Your task to perform on an android device: turn off notifications in google photos Image 0: 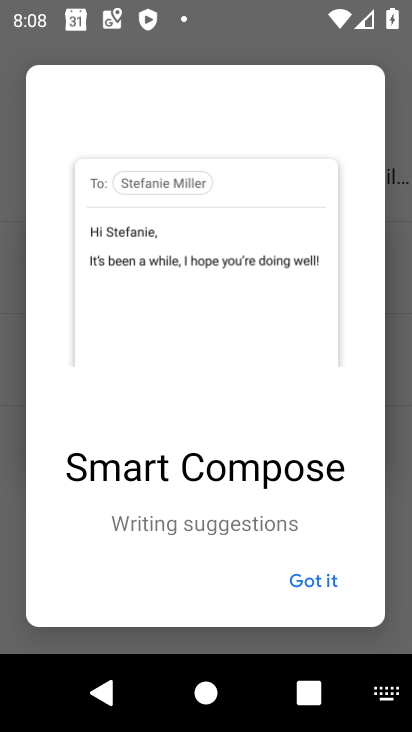
Step 0: press home button
Your task to perform on an android device: turn off notifications in google photos Image 1: 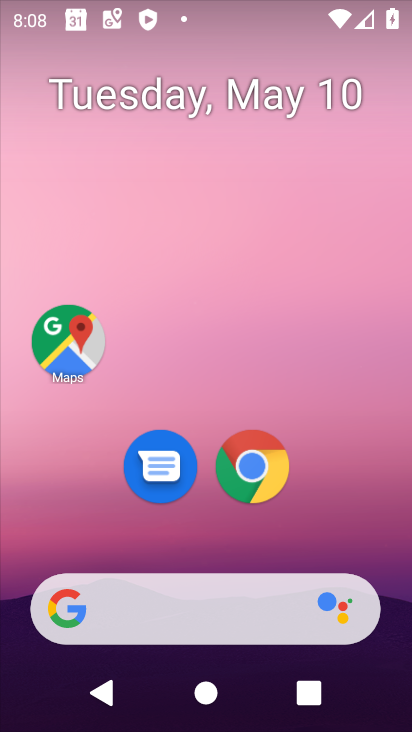
Step 1: drag from (321, 537) to (262, 35)
Your task to perform on an android device: turn off notifications in google photos Image 2: 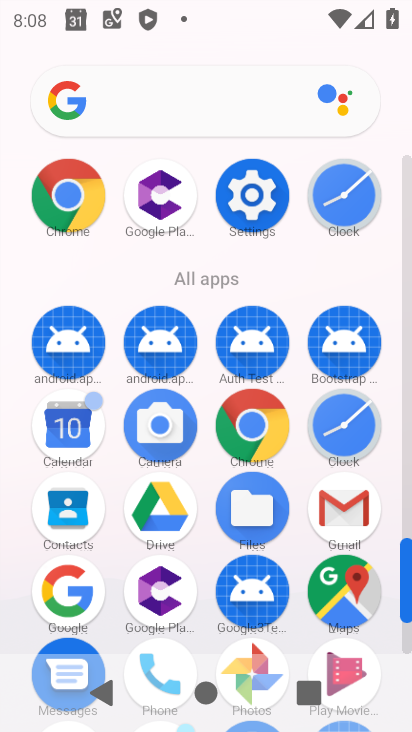
Step 2: drag from (234, 519) to (205, 343)
Your task to perform on an android device: turn off notifications in google photos Image 3: 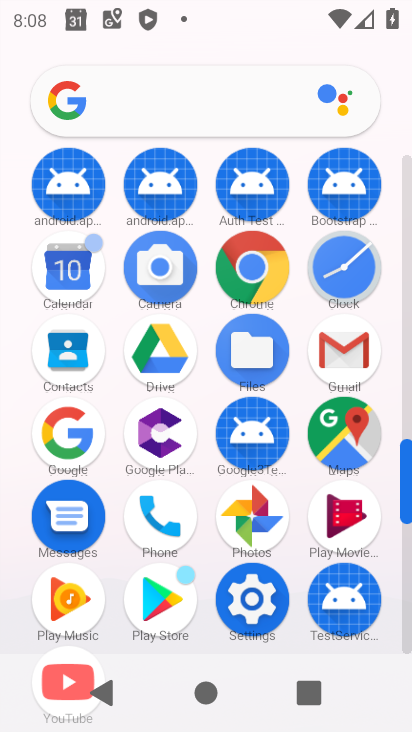
Step 3: click (233, 513)
Your task to perform on an android device: turn off notifications in google photos Image 4: 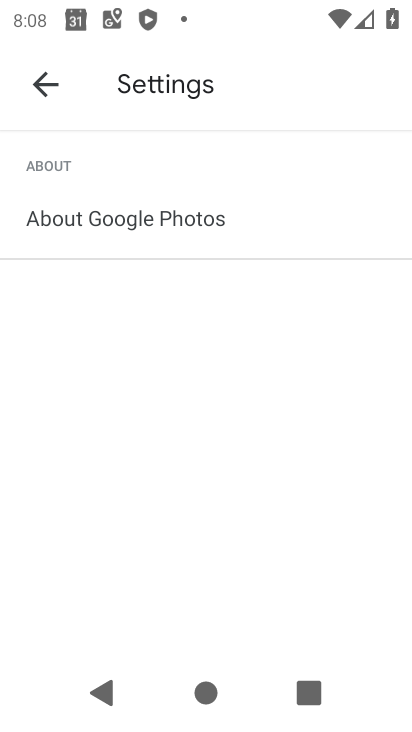
Step 4: click (46, 79)
Your task to perform on an android device: turn off notifications in google photos Image 5: 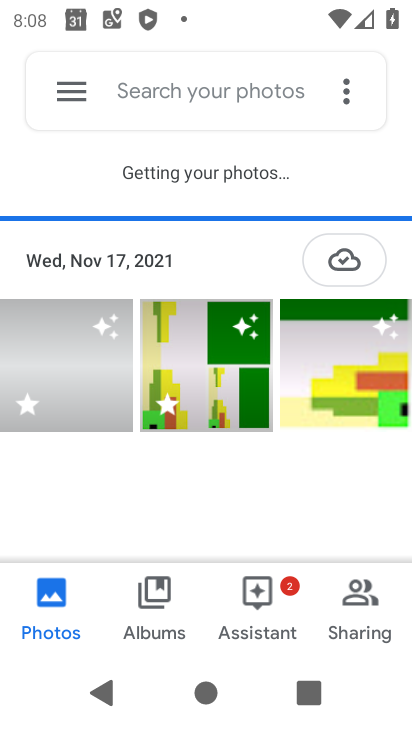
Step 5: click (46, 80)
Your task to perform on an android device: turn off notifications in google photos Image 6: 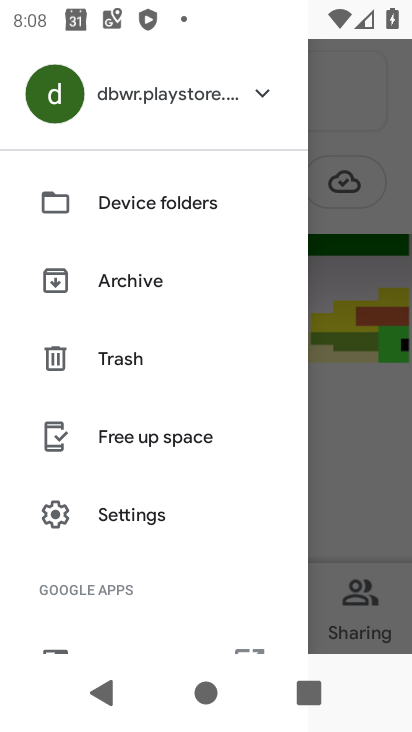
Step 6: click (158, 510)
Your task to perform on an android device: turn off notifications in google photos Image 7: 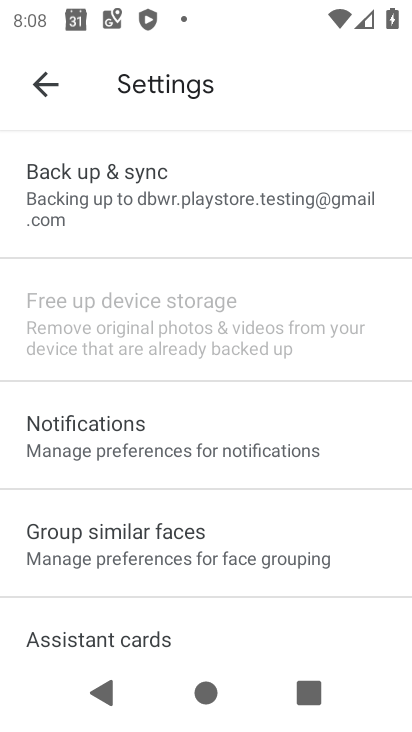
Step 7: click (146, 470)
Your task to perform on an android device: turn off notifications in google photos Image 8: 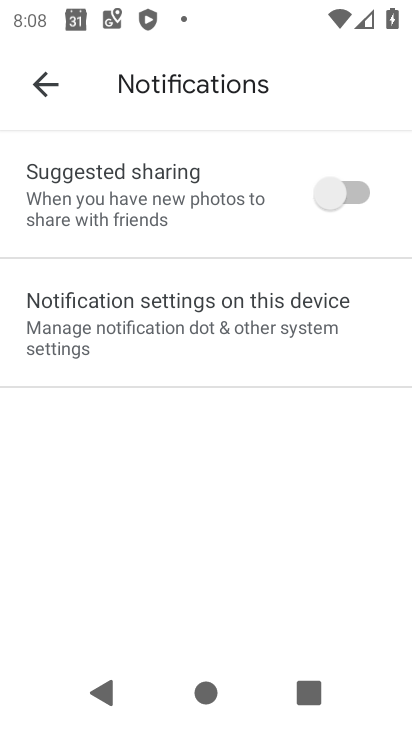
Step 8: click (272, 296)
Your task to perform on an android device: turn off notifications in google photos Image 9: 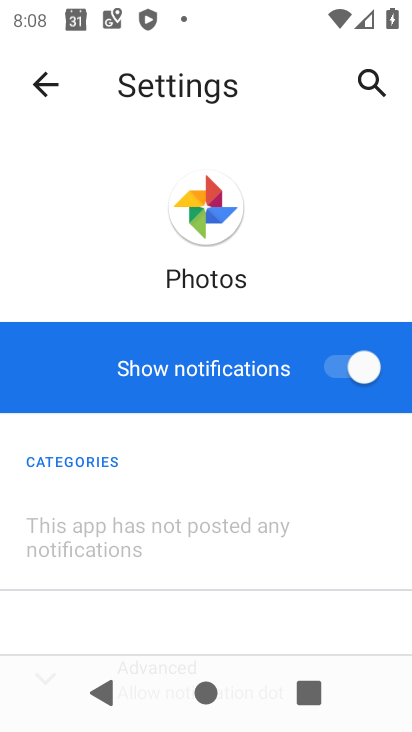
Step 9: click (303, 352)
Your task to perform on an android device: turn off notifications in google photos Image 10: 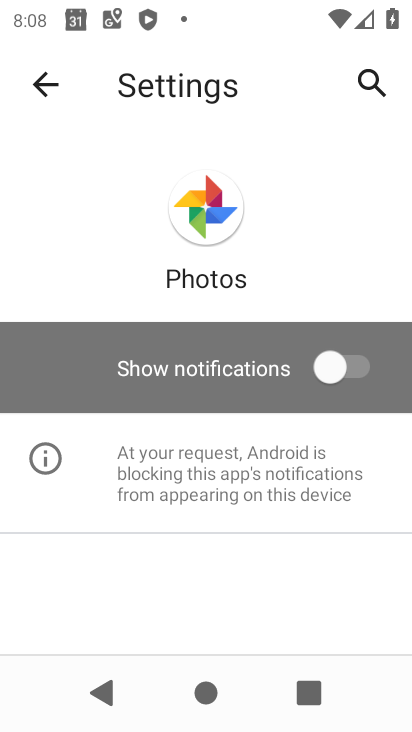
Step 10: task complete